Your task to perform on an android device: Check the news Image 0: 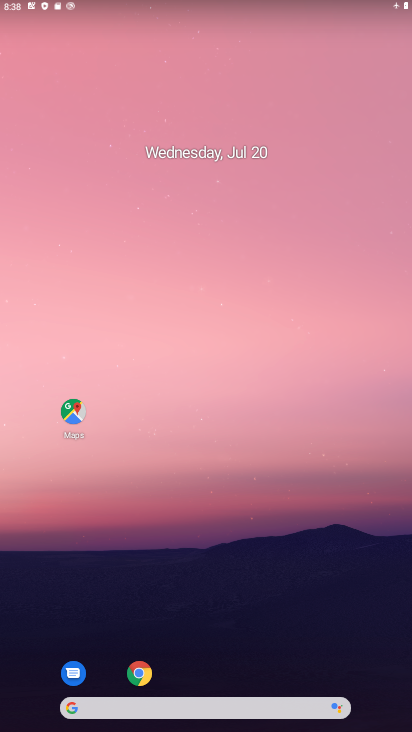
Step 0: drag from (2, 213) to (272, 239)
Your task to perform on an android device: Check the news Image 1: 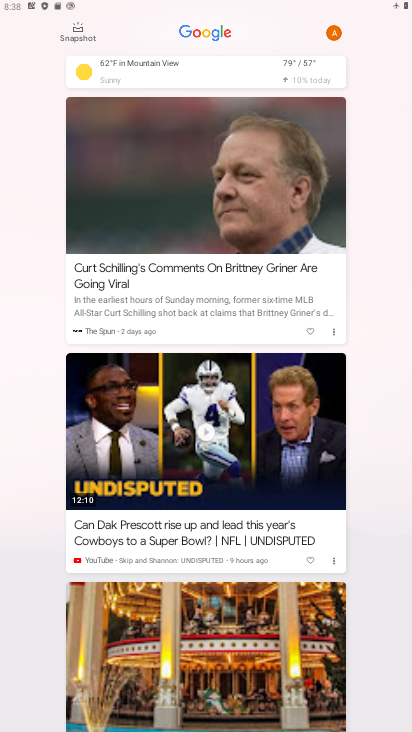
Step 1: task complete